Your task to perform on an android device: Go to battery settings Image 0: 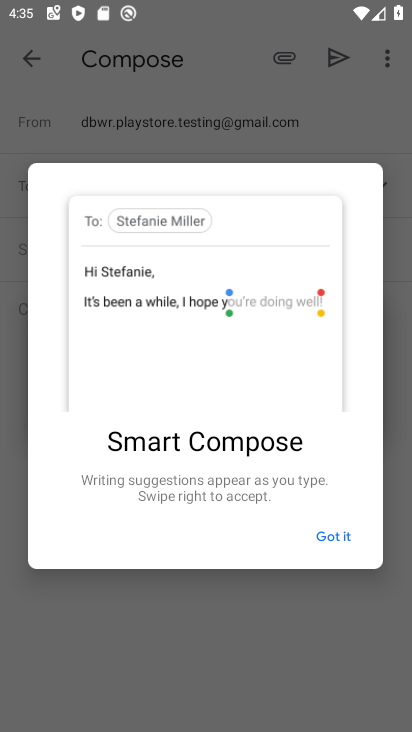
Step 0: press home button
Your task to perform on an android device: Go to battery settings Image 1: 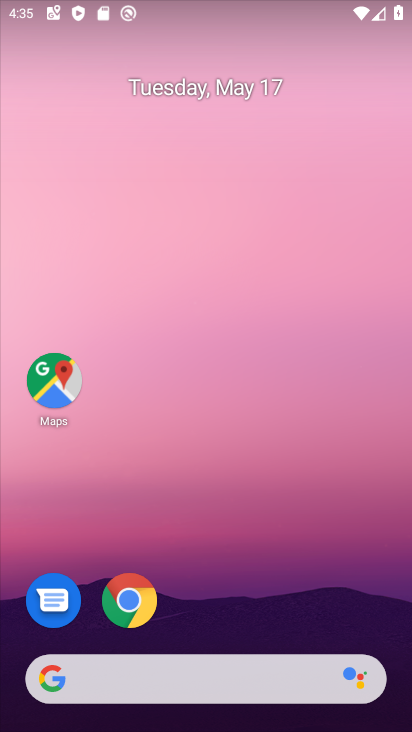
Step 1: drag from (240, 633) to (263, 19)
Your task to perform on an android device: Go to battery settings Image 2: 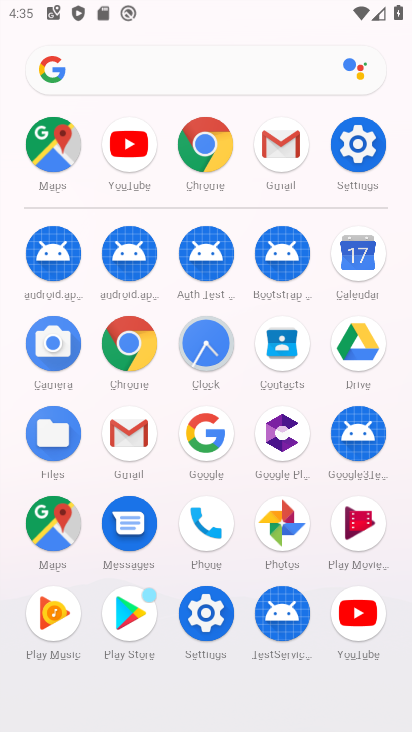
Step 2: click (215, 615)
Your task to perform on an android device: Go to battery settings Image 3: 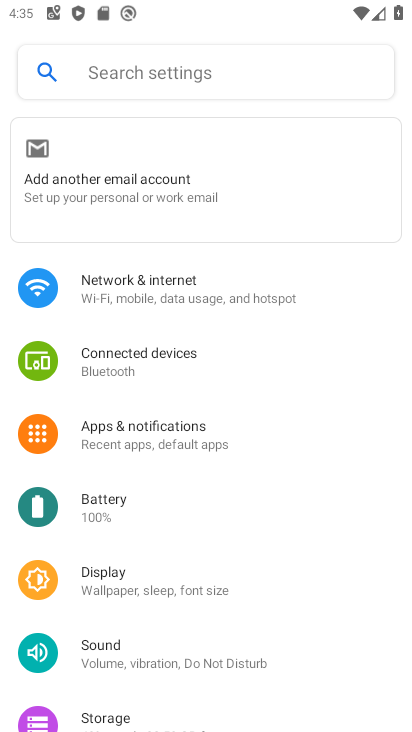
Step 3: click (145, 507)
Your task to perform on an android device: Go to battery settings Image 4: 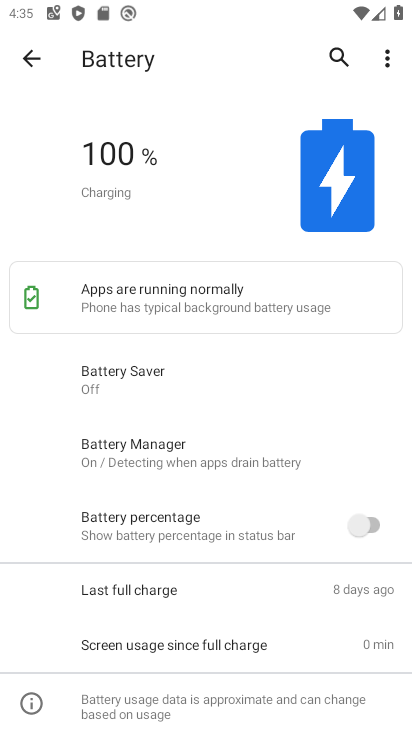
Step 4: task complete